Your task to perform on an android device: Go to wifi settings Image 0: 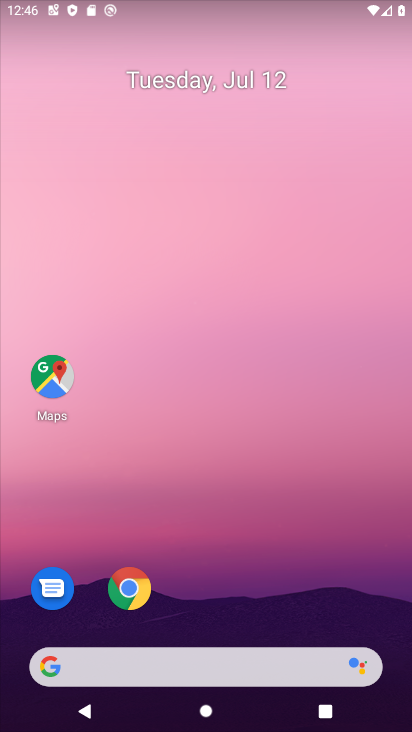
Step 0: click (265, 309)
Your task to perform on an android device: Go to wifi settings Image 1: 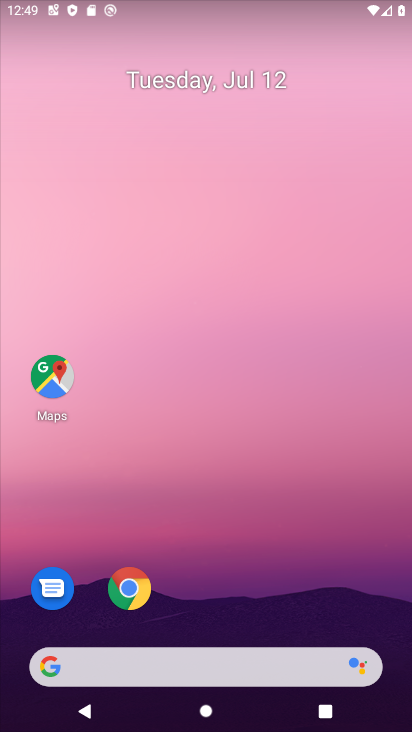
Step 1: drag from (245, 598) to (199, 256)
Your task to perform on an android device: Go to wifi settings Image 2: 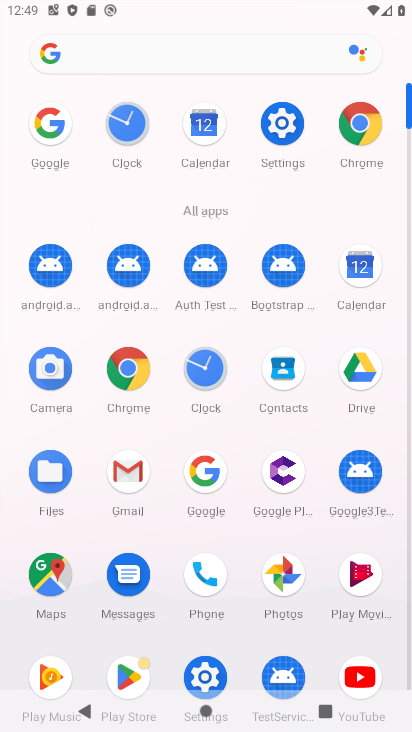
Step 2: click (278, 125)
Your task to perform on an android device: Go to wifi settings Image 3: 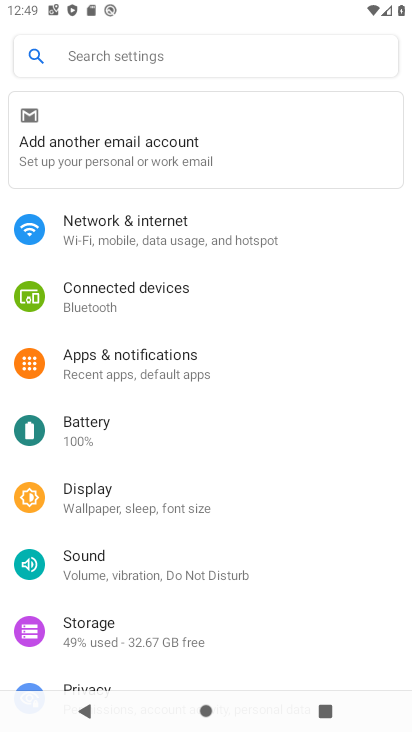
Step 3: click (147, 239)
Your task to perform on an android device: Go to wifi settings Image 4: 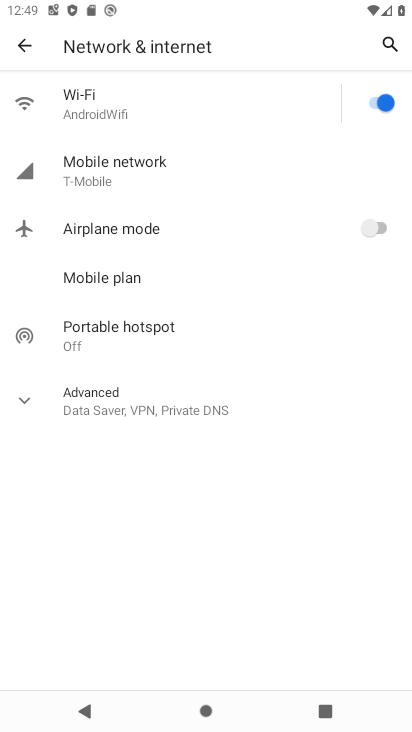
Step 4: click (148, 234)
Your task to perform on an android device: Go to wifi settings Image 5: 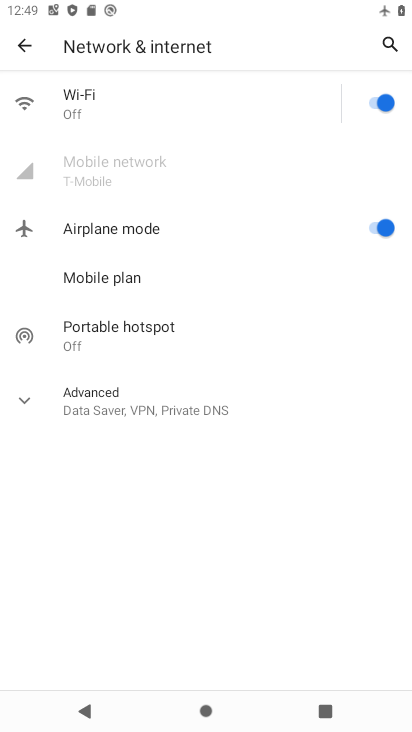
Step 5: click (89, 111)
Your task to perform on an android device: Go to wifi settings Image 6: 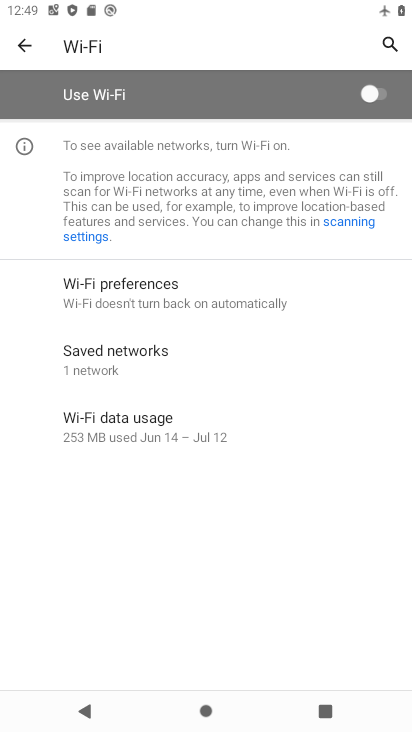
Step 6: click (383, 94)
Your task to perform on an android device: Go to wifi settings Image 7: 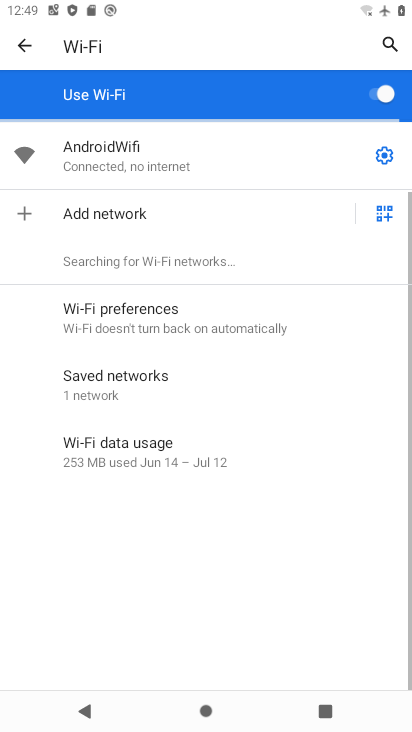
Step 7: click (378, 144)
Your task to perform on an android device: Go to wifi settings Image 8: 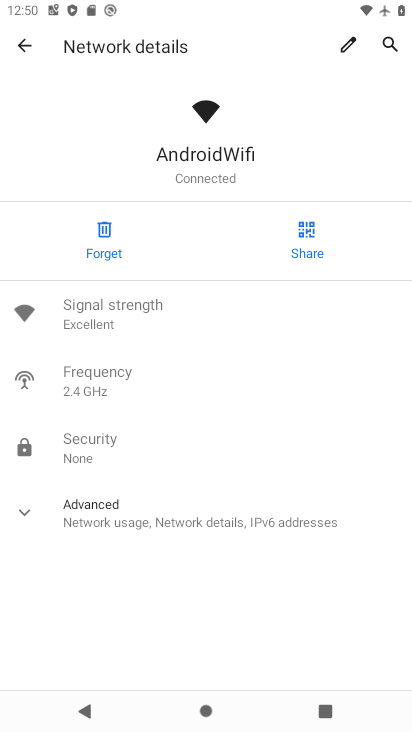
Step 8: task complete